Your task to perform on an android device: What is the recent news? Image 0: 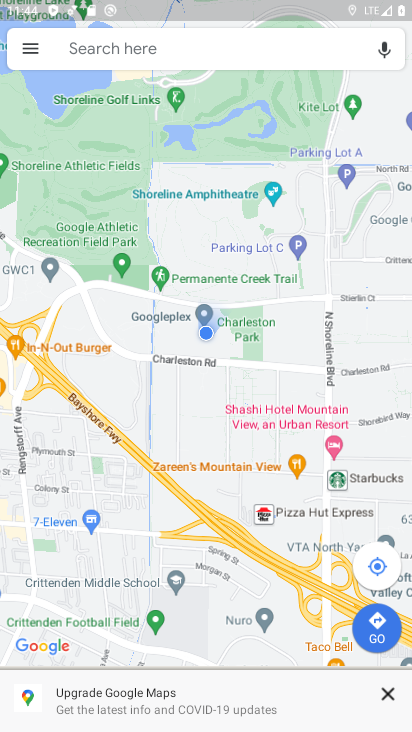
Step 0: press home button
Your task to perform on an android device: What is the recent news? Image 1: 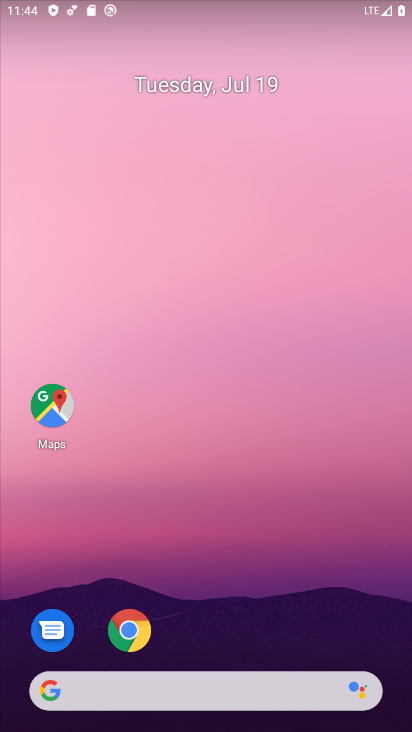
Step 1: drag from (261, 719) to (313, 275)
Your task to perform on an android device: What is the recent news? Image 2: 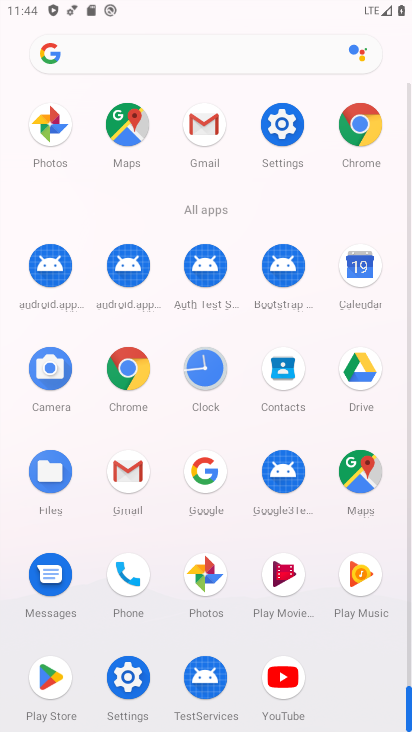
Step 2: click (207, 493)
Your task to perform on an android device: What is the recent news? Image 3: 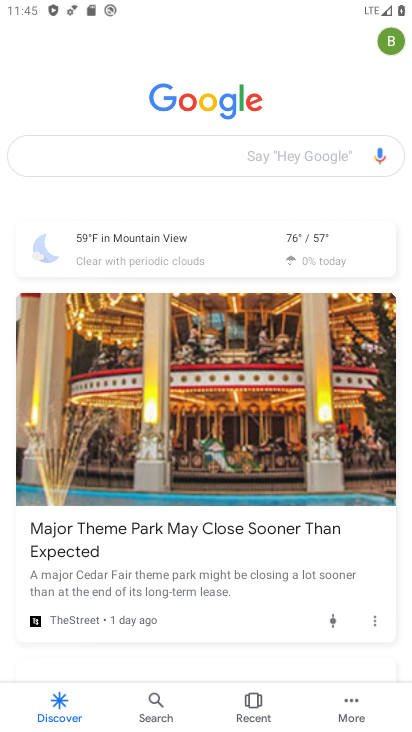
Step 3: click (286, 170)
Your task to perform on an android device: What is the recent news? Image 4: 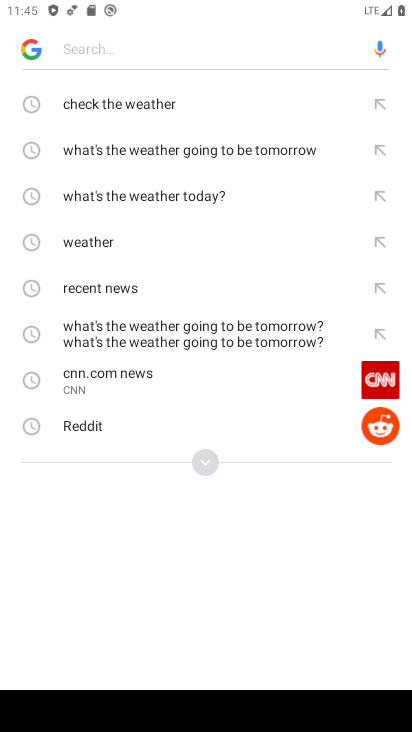
Step 4: click (160, 285)
Your task to perform on an android device: What is the recent news? Image 5: 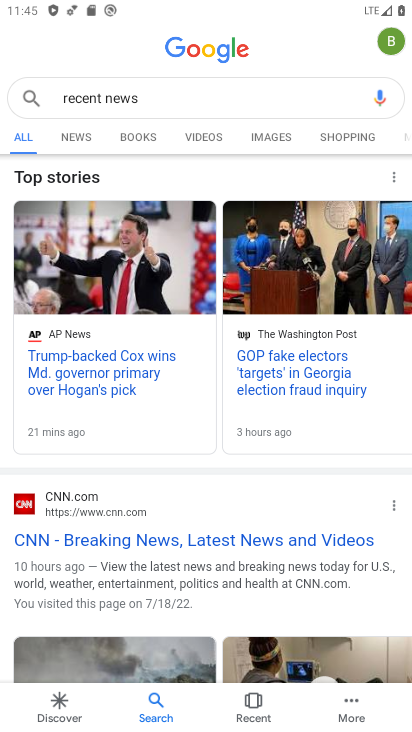
Step 5: click (84, 143)
Your task to perform on an android device: What is the recent news? Image 6: 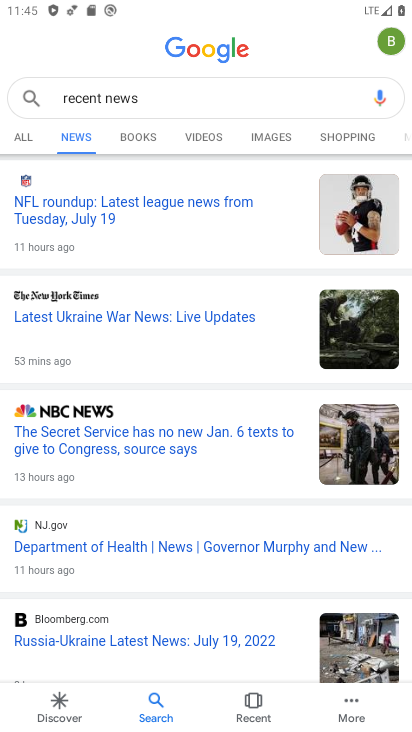
Step 6: task complete